Your task to perform on an android device: move a message to another label in the gmail app Image 0: 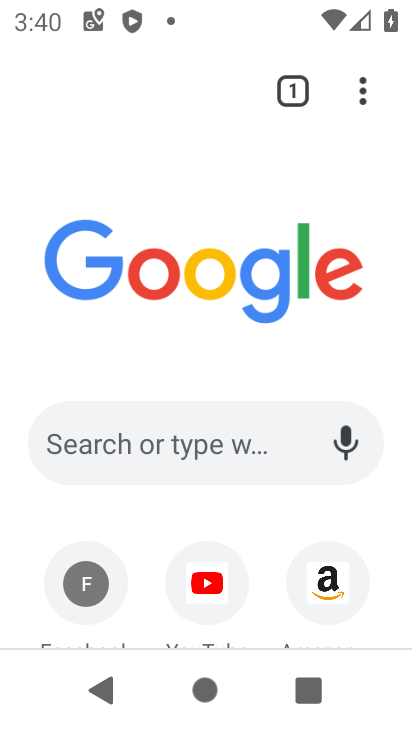
Step 0: press home button
Your task to perform on an android device: move a message to another label in the gmail app Image 1: 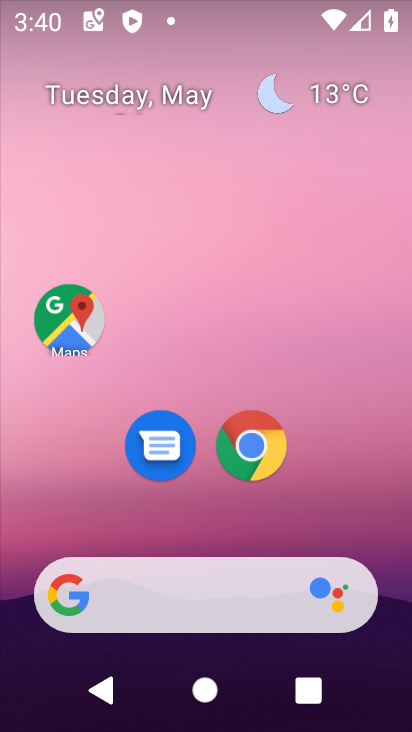
Step 1: drag from (211, 529) to (236, 31)
Your task to perform on an android device: move a message to another label in the gmail app Image 2: 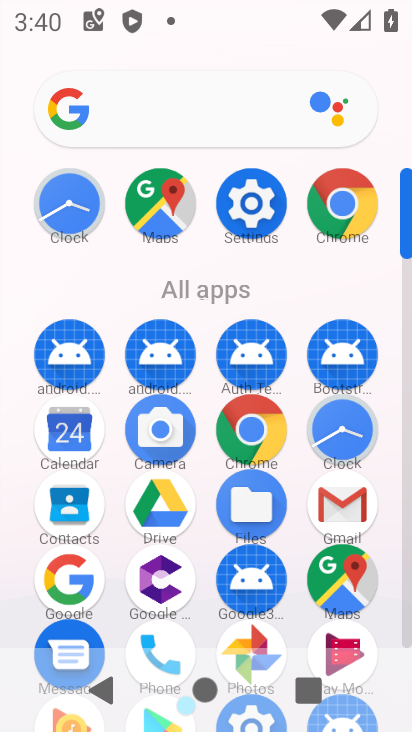
Step 2: click (333, 493)
Your task to perform on an android device: move a message to another label in the gmail app Image 3: 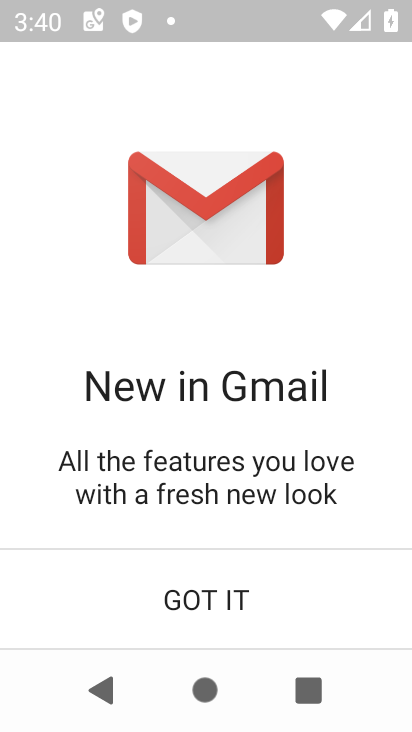
Step 3: click (218, 611)
Your task to perform on an android device: move a message to another label in the gmail app Image 4: 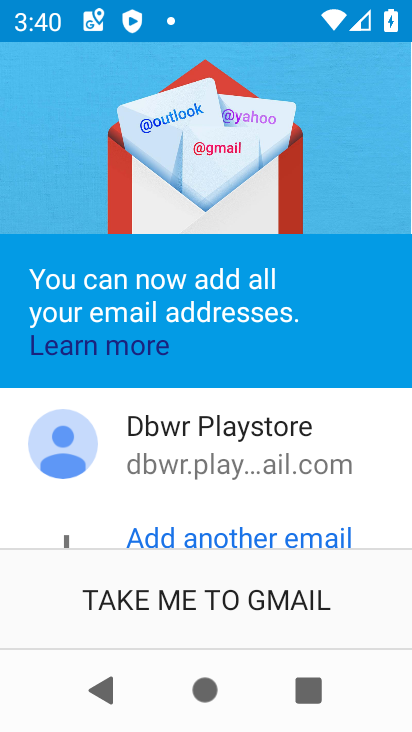
Step 4: click (203, 620)
Your task to perform on an android device: move a message to another label in the gmail app Image 5: 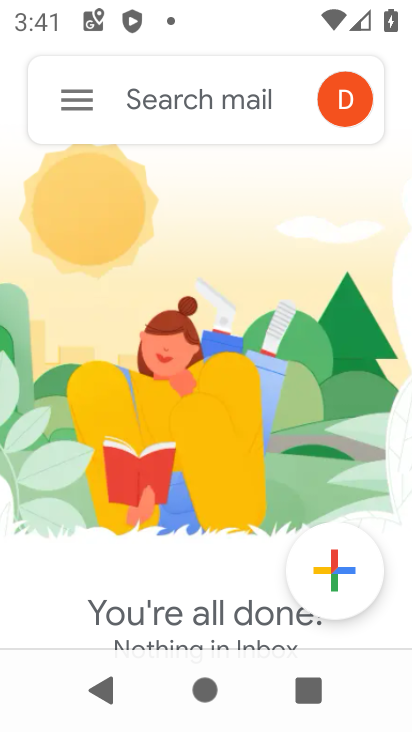
Step 5: task complete